Your task to perform on an android device: show emergency info Image 0: 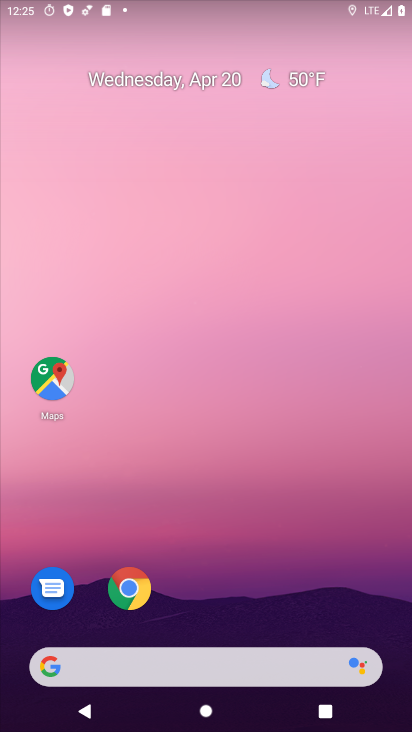
Step 0: drag from (210, 593) to (177, 3)
Your task to perform on an android device: show emergency info Image 1: 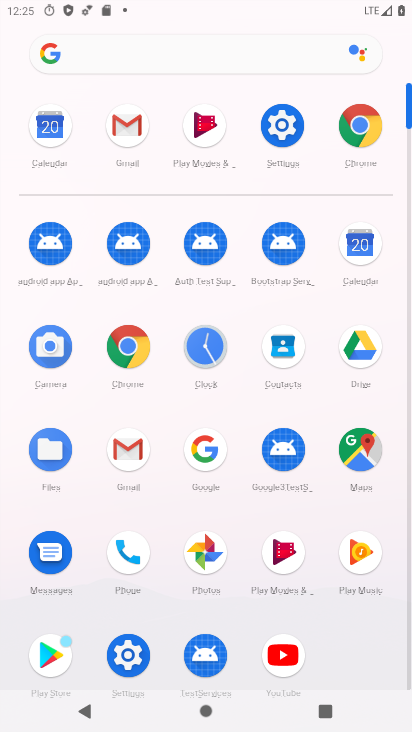
Step 1: click (128, 642)
Your task to perform on an android device: show emergency info Image 2: 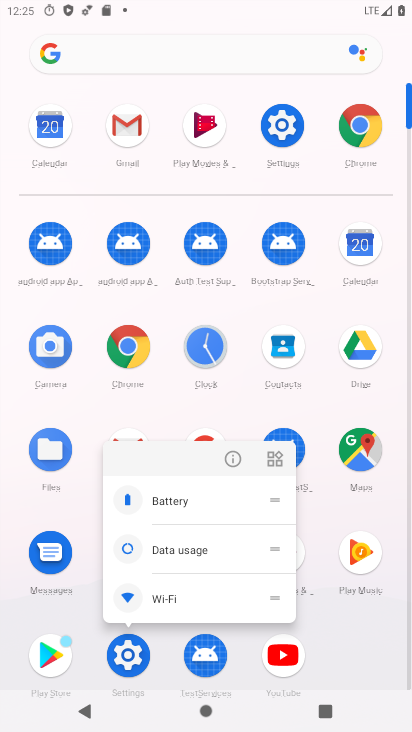
Step 2: click (128, 643)
Your task to perform on an android device: show emergency info Image 3: 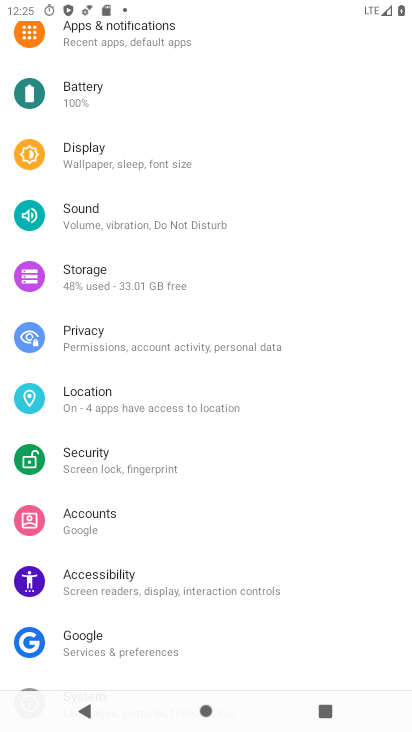
Step 3: drag from (143, 638) to (101, 180)
Your task to perform on an android device: show emergency info Image 4: 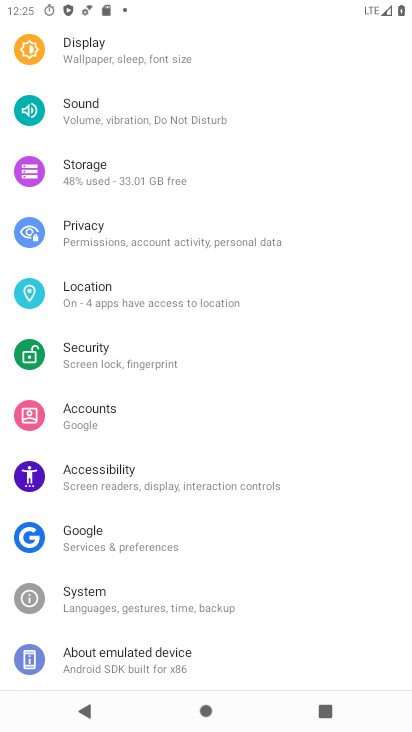
Step 4: click (138, 640)
Your task to perform on an android device: show emergency info Image 5: 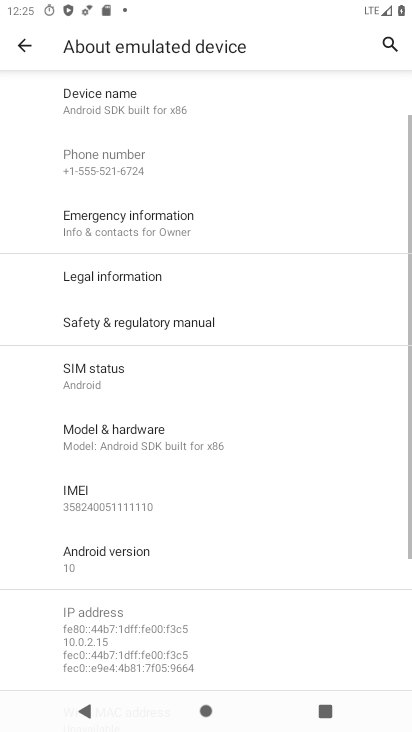
Step 5: click (97, 233)
Your task to perform on an android device: show emergency info Image 6: 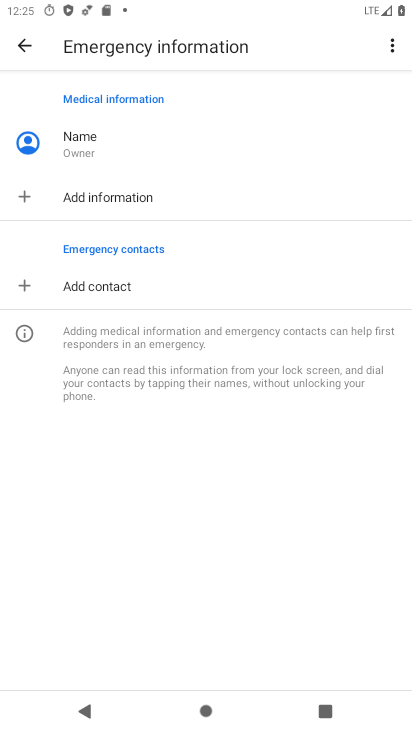
Step 6: task complete